Your task to perform on an android device: Set the phone to "Do not disturb". Image 0: 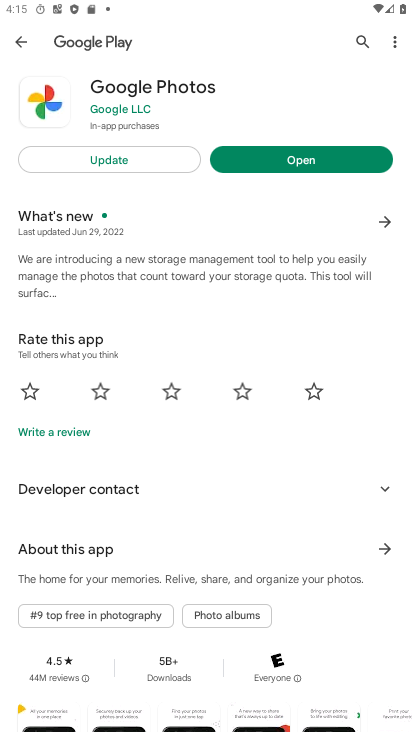
Step 0: press back button
Your task to perform on an android device: Set the phone to "Do not disturb". Image 1: 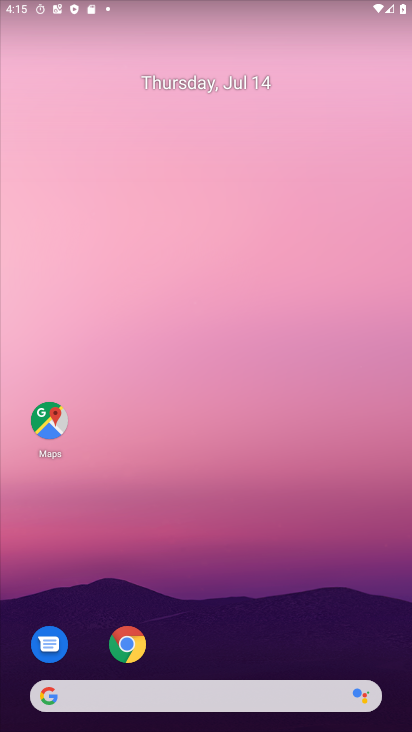
Step 1: drag from (122, 9) to (185, 593)
Your task to perform on an android device: Set the phone to "Do not disturb". Image 2: 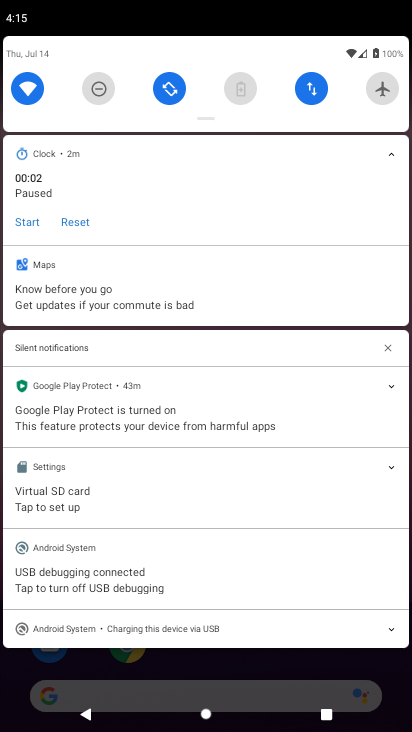
Step 2: click (98, 85)
Your task to perform on an android device: Set the phone to "Do not disturb". Image 3: 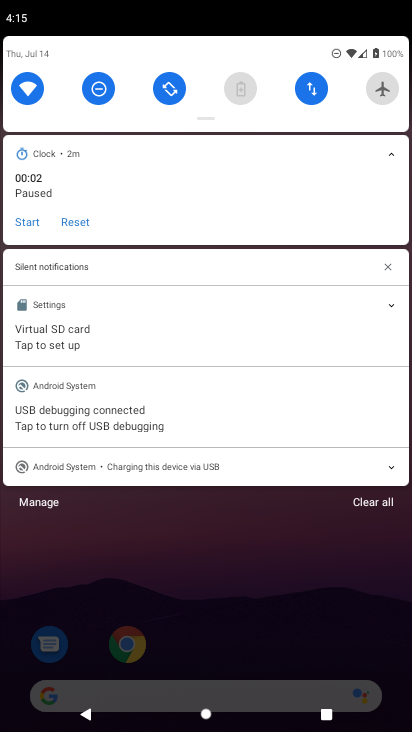
Step 3: task complete